Your task to perform on an android device: see tabs open on other devices in the chrome app Image 0: 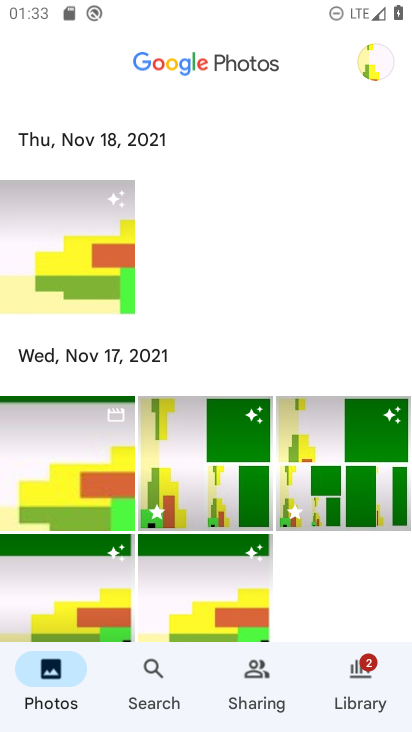
Step 0: press home button
Your task to perform on an android device: see tabs open on other devices in the chrome app Image 1: 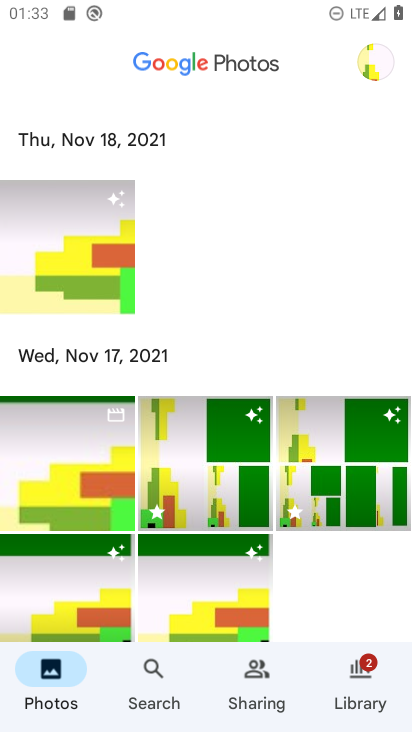
Step 1: press home button
Your task to perform on an android device: see tabs open on other devices in the chrome app Image 2: 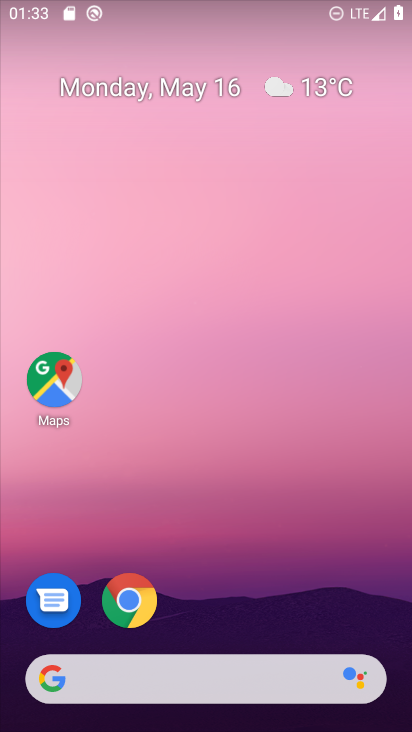
Step 2: click (129, 594)
Your task to perform on an android device: see tabs open on other devices in the chrome app Image 3: 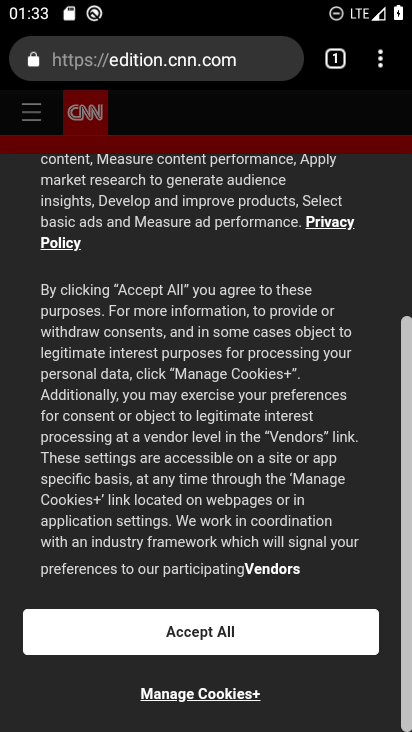
Step 3: click (389, 54)
Your task to perform on an android device: see tabs open on other devices in the chrome app Image 4: 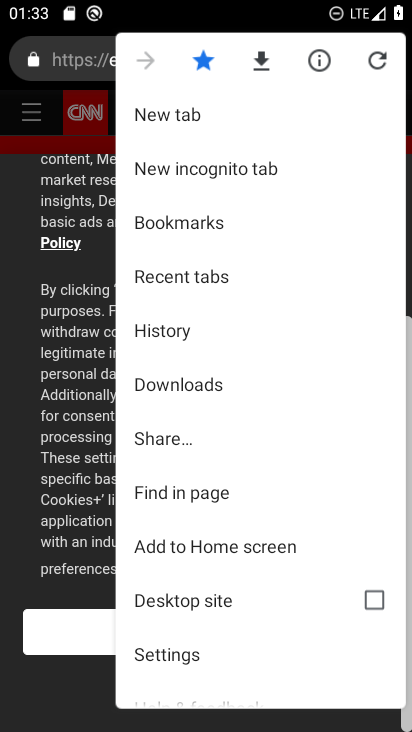
Step 4: click (229, 267)
Your task to perform on an android device: see tabs open on other devices in the chrome app Image 5: 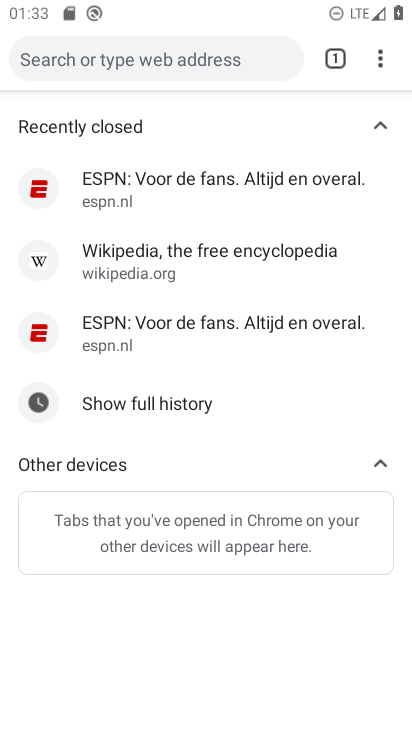
Step 5: task complete